Your task to perform on an android device: check data usage Image 0: 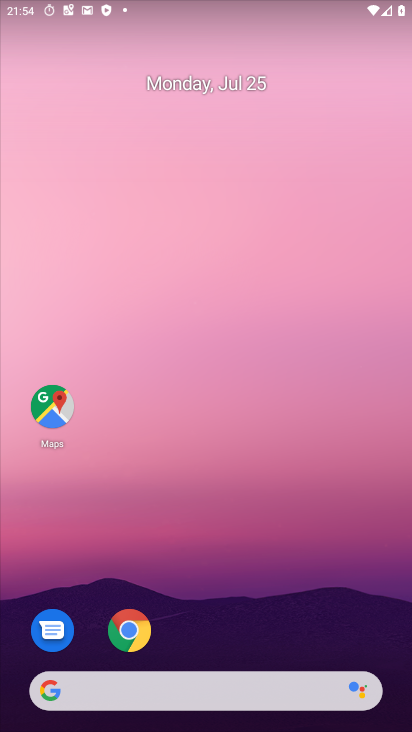
Step 0: press home button
Your task to perform on an android device: check data usage Image 1: 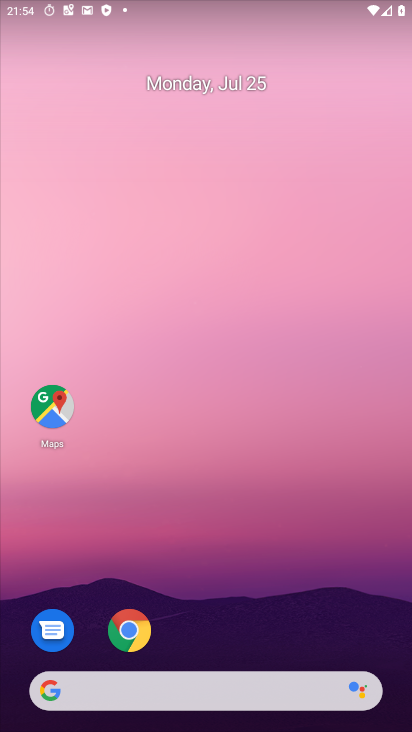
Step 1: press home button
Your task to perform on an android device: check data usage Image 2: 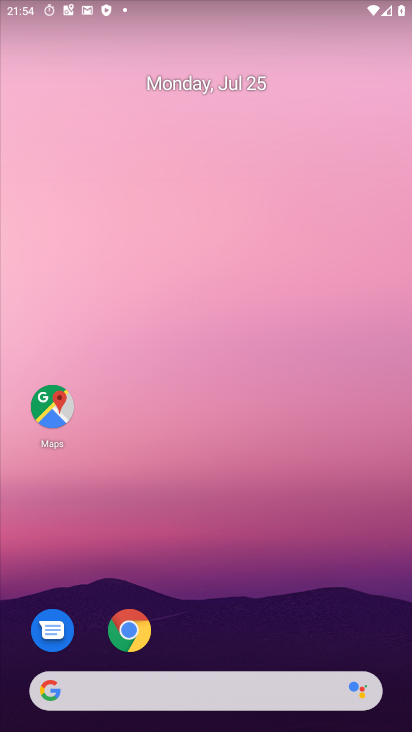
Step 2: drag from (273, 633) to (285, 142)
Your task to perform on an android device: check data usage Image 3: 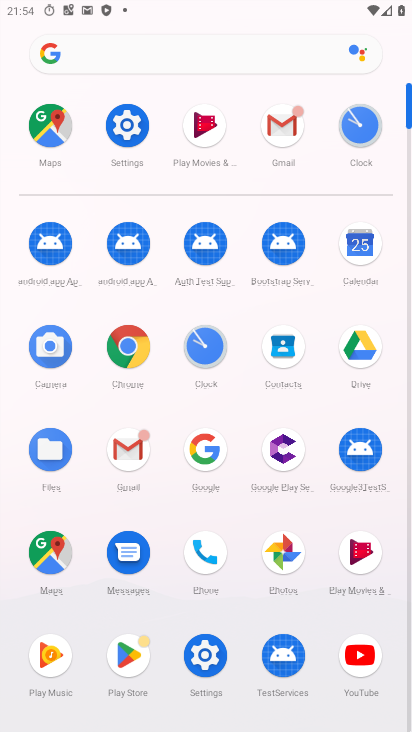
Step 3: click (135, 121)
Your task to perform on an android device: check data usage Image 4: 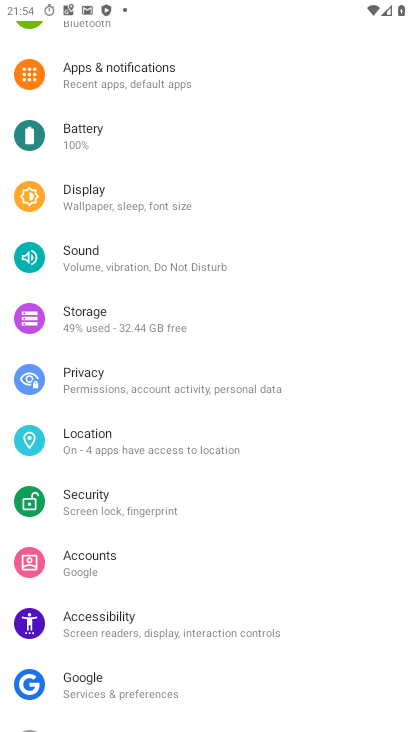
Step 4: drag from (273, 127) to (330, 621)
Your task to perform on an android device: check data usage Image 5: 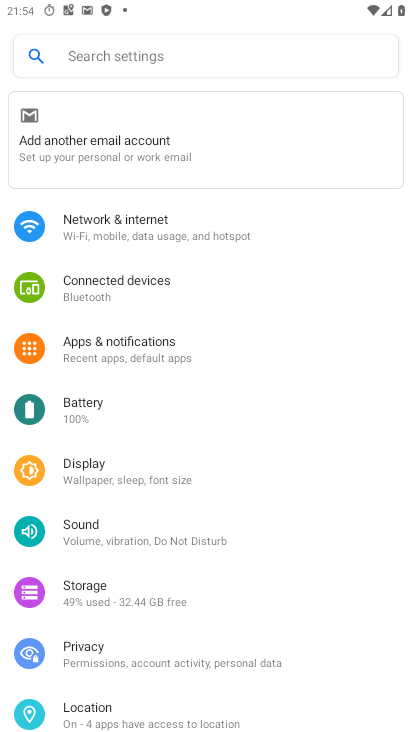
Step 5: click (151, 234)
Your task to perform on an android device: check data usage Image 6: 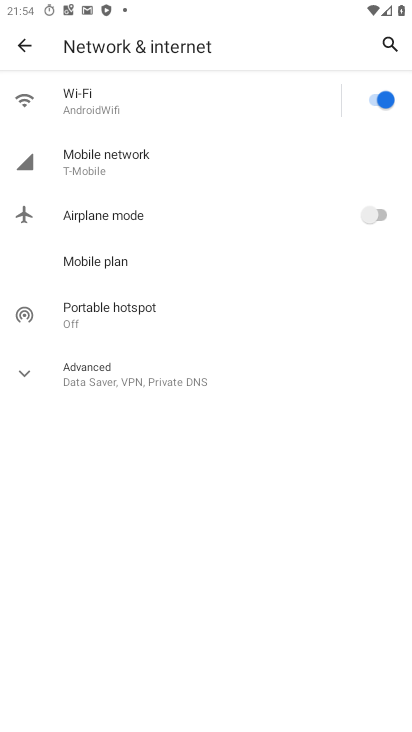
Step 6: click (94, 169)
Your task to perform on an android device: check data usage Image 7: 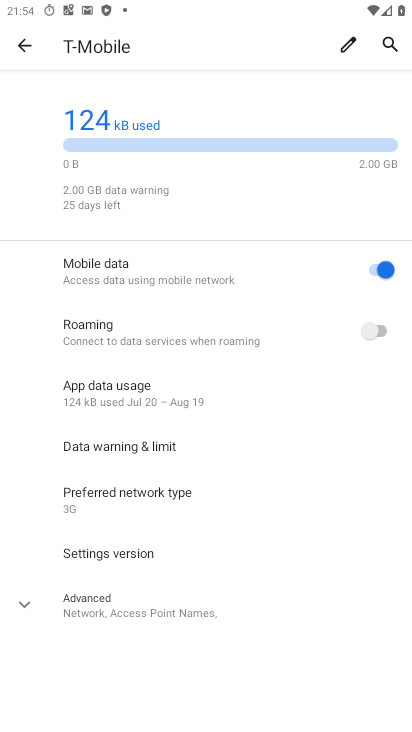
Step 7: click (118, 388)
Your task to perform on an android device: check data usage Image 8: 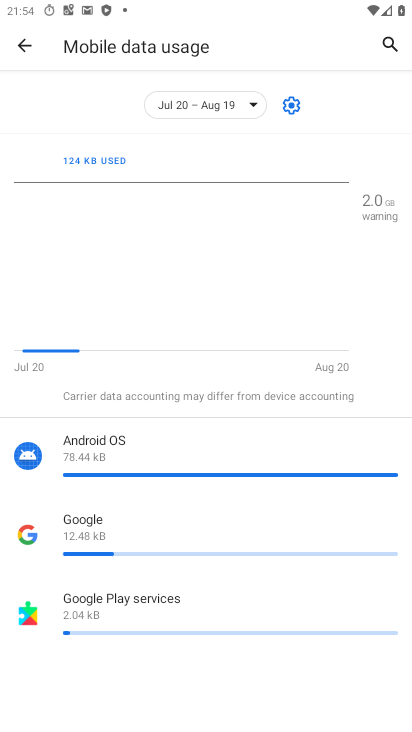
Step 8: task complete